Your task to perform on an android device: set default search engine in the chrome app Image 0: 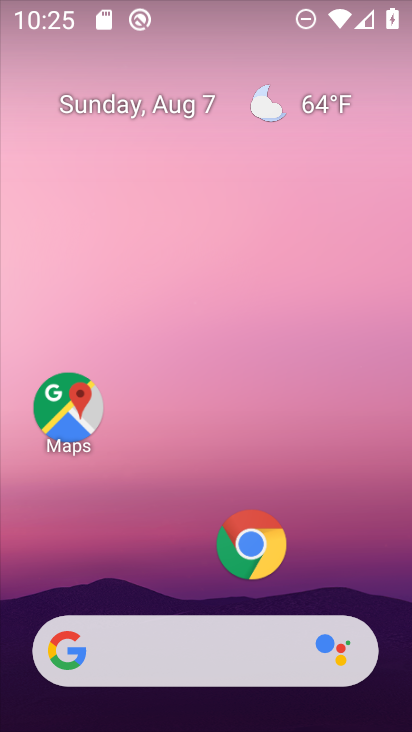
Step 0: drag from (213, 619) to (148, 19)
Your task to perform on an android device: set default search engine in the chrome app Image 1: 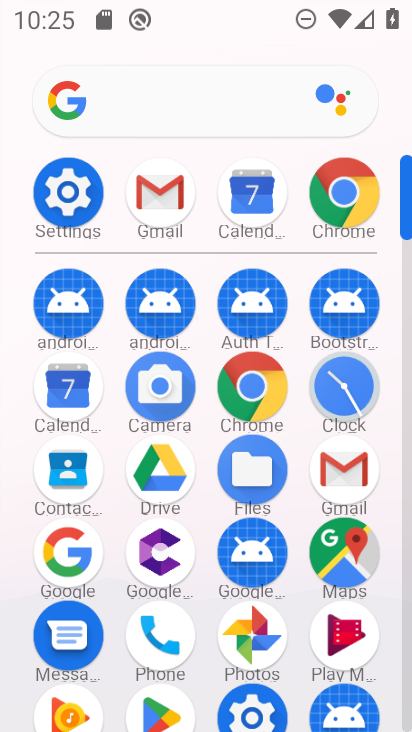
Step 1: click (252, 403)
Your task to perform on an android device: set default search engine in the chrome app Image 2: 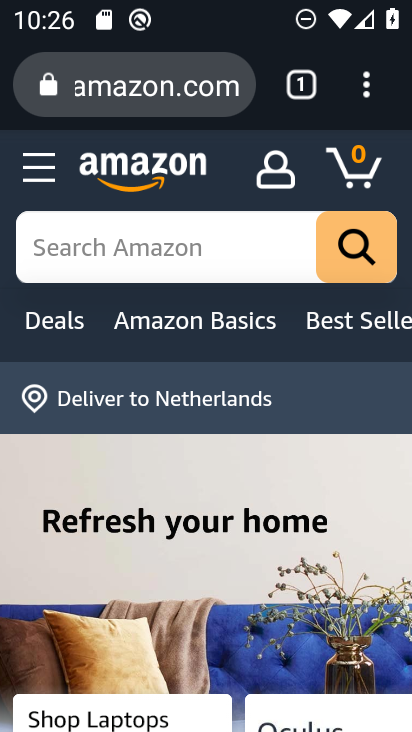
Step 2: click (373, 87)
Your task to perform on an android device: set default search engine in the chrome app Image 3: 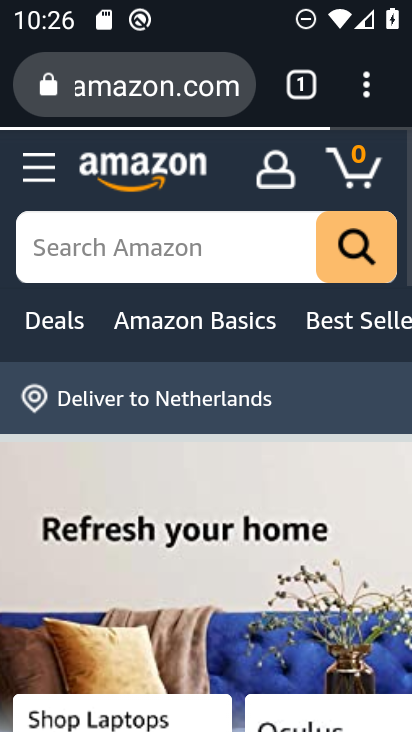
Step 3: drag from (373, 87) to (91, 595)
Your task to perform on an android device: set default search engine in the chrome app Image 4: 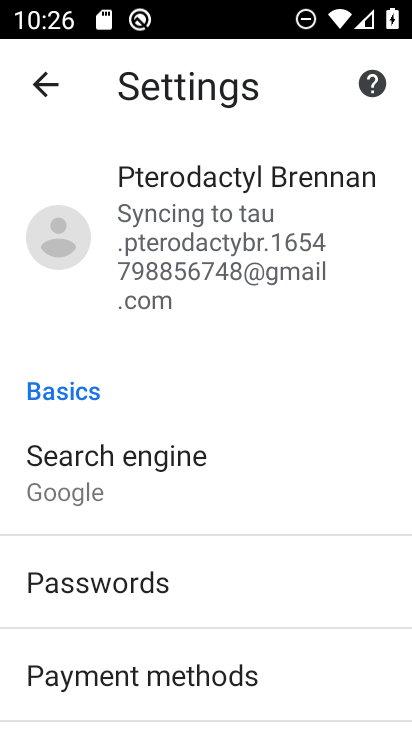
Step 4: click (110, 458)
Your task to perform on an android device: set default search engine in the chrome app Image 5: 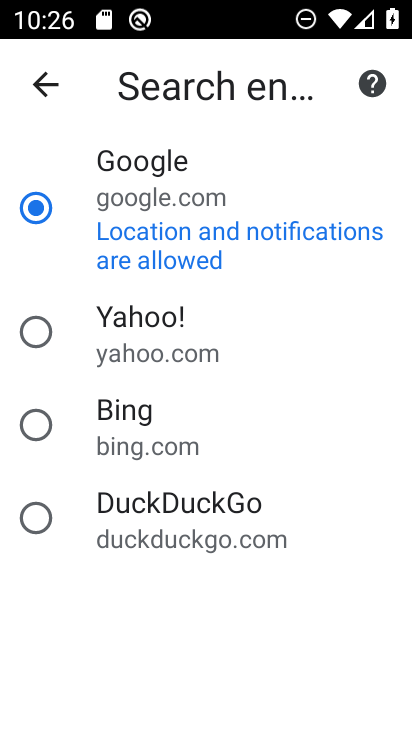
Step 5: click (119, 205)
Your task to perform on an android device: set default search engine in the chrome app Image 6: 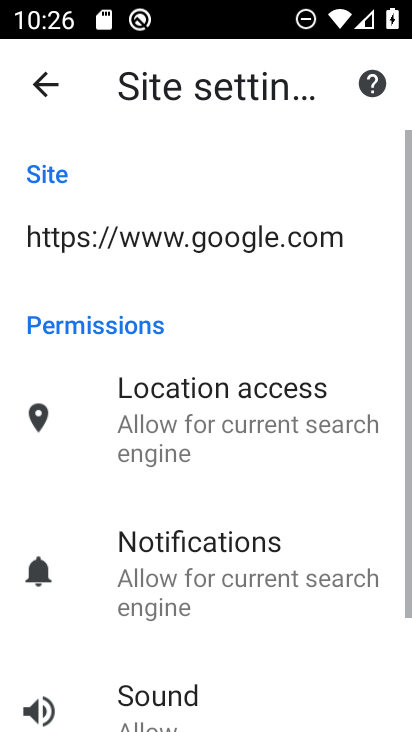
Step 6: task complete